Your task to perform on an android device: Open the stopwatch Image 0: 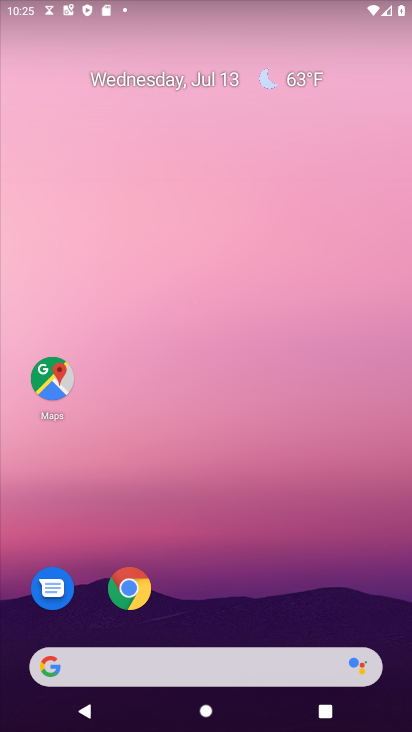
Step 0: drag from (56, 468) to (230, 38)
Your task to perform on an android device: Open the stopwatch Image 1: 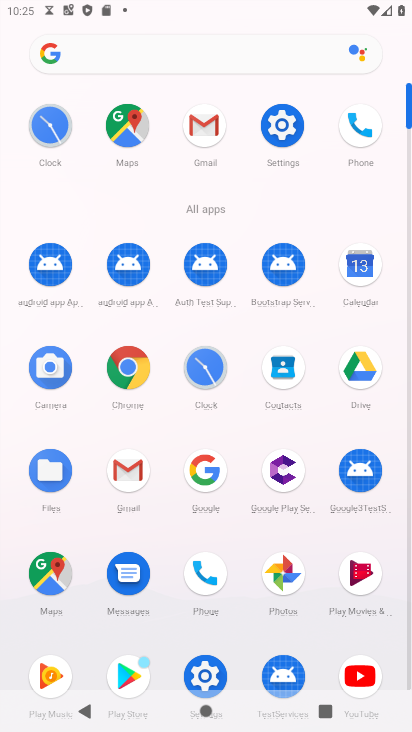
Step 1: click (196, 370)
Your task to perform on an android device: Open the stopwatch Image 2: 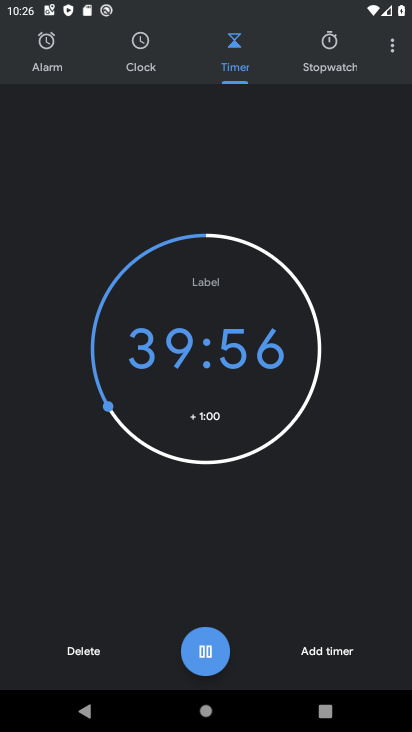
Step 2: click (339, 57)
Your task to perform on an android device: Open the stopwatch Image 3: 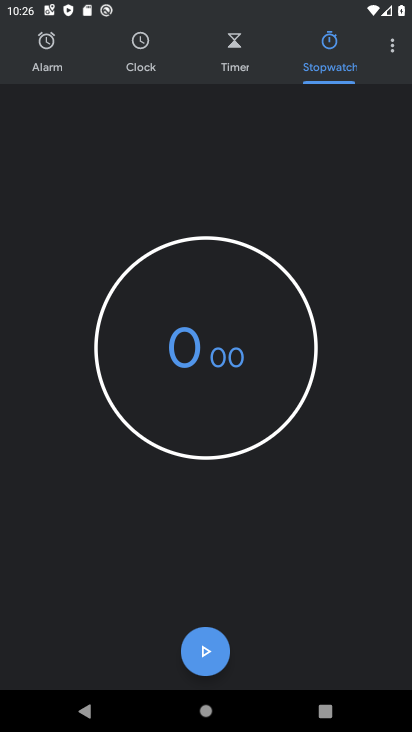
Step 3: task complete